Your task to perform on an android device: turn off priority inbox in the gmail app Image 0: 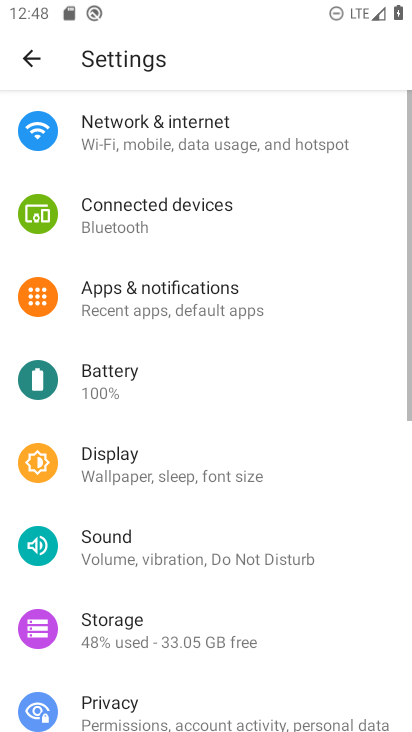
Step 0: press home button
Your task to perform on an android device: turn off priority inbox in the gmail app Image 1: 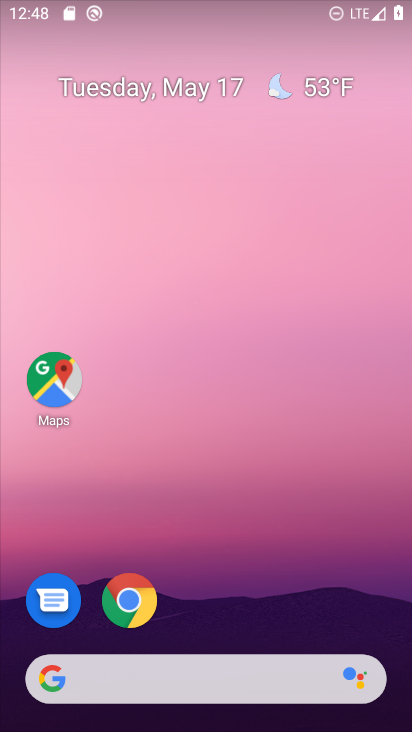
Step 1: drag from (225, 544) to (98, 77)
Your task to perform on an android device: turn off priority inbox in the gmail app Image 2: 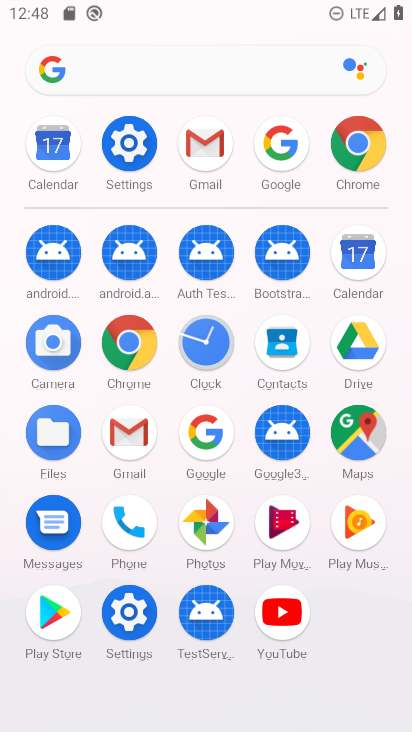
Step 2: click (197, 144)
Your task to perform on an android device: turn off priority inbox in the gmail app Image 3: 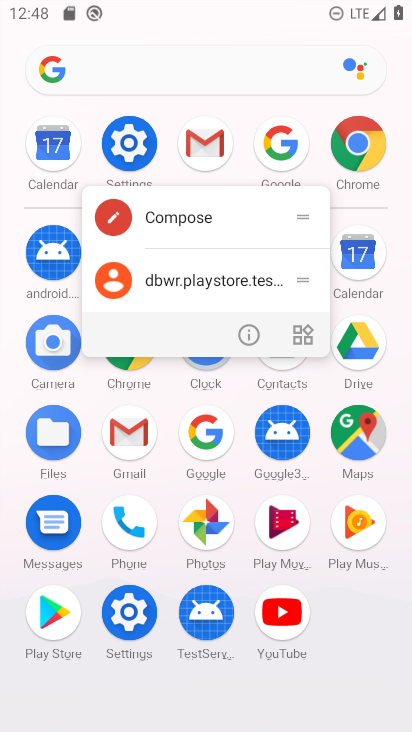
Step 3: click (200, 144)
Your task to perform on an android device: turn off priority inbox in the gmail app Image 4: 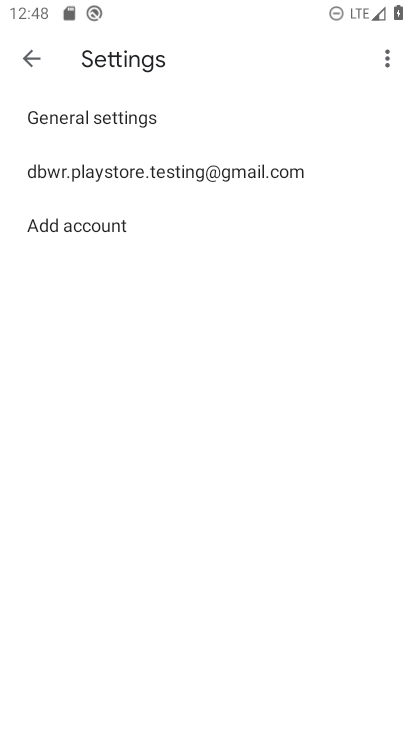
Step 4: click (148, 163)
Your task to perform on an android device: turn off priority inbox in the gmail app Image 5: 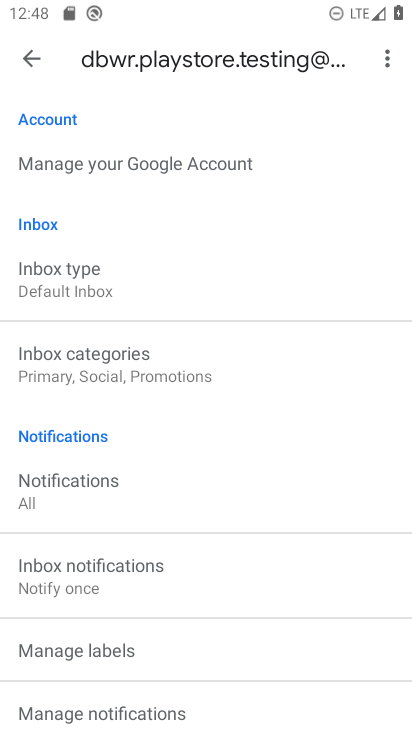
Step 5: click (88, 281)
Your task to perform on an android device: turn off priority inbox in the gmail app Image 6: 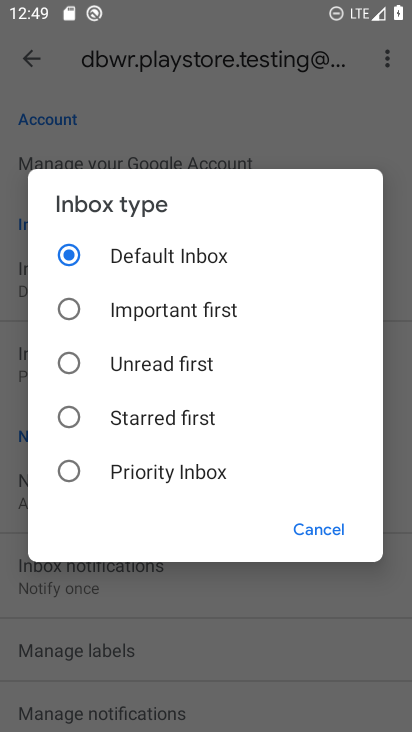
Step 6: task complete